Your task to perform on an android device: Open Reddit.com Image 0: 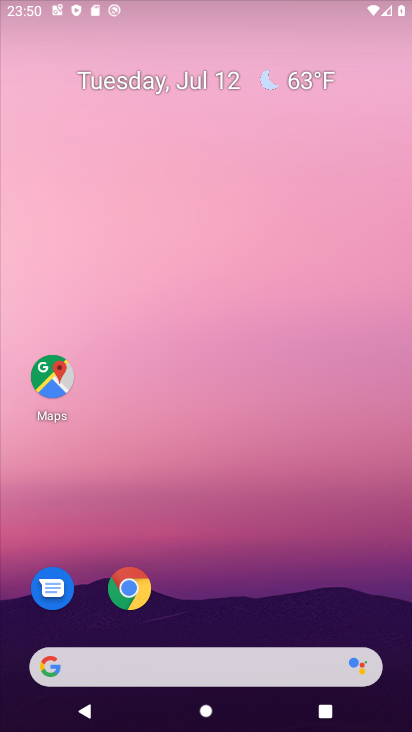
Step 0: click (86, 655)
Your task to perform on an android device: Open Reddit.com Image 1: 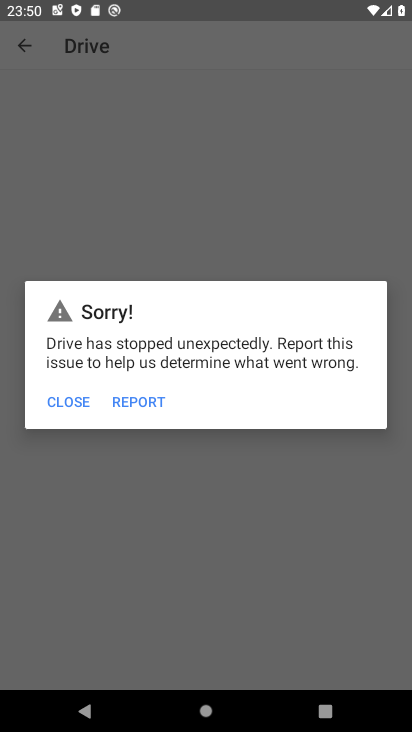
Step 1: press home button
Your task to perform on an android device: Open Reddit.com Image 2: 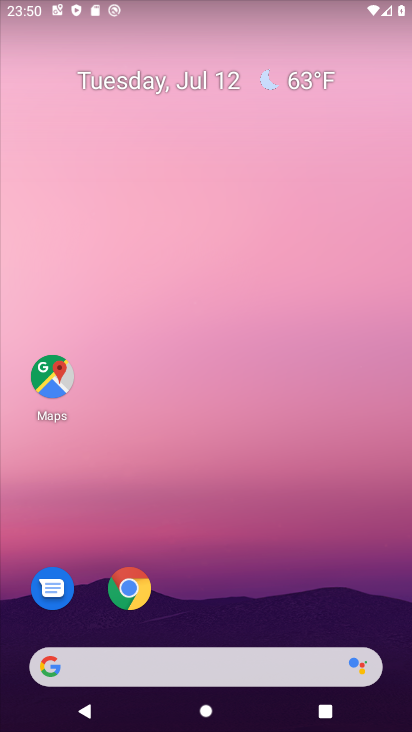
Step 2: click (116, 661)
Your task to perform on an android device: Open Reddit.com Image 3: 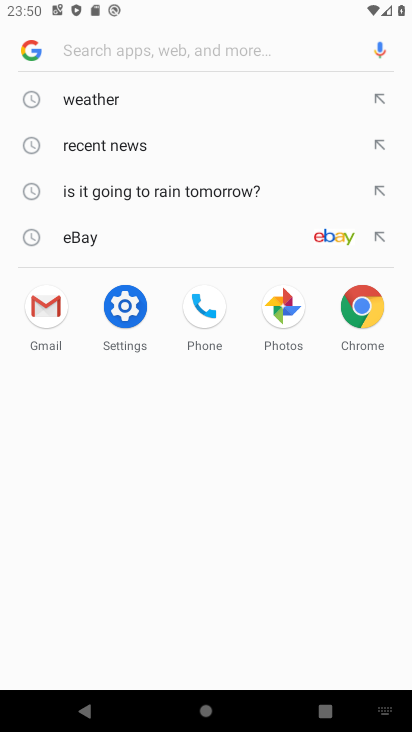
Step 3: type "Reddit.com"
Your task to perform on an android device: Open Reddit.com Image 4: 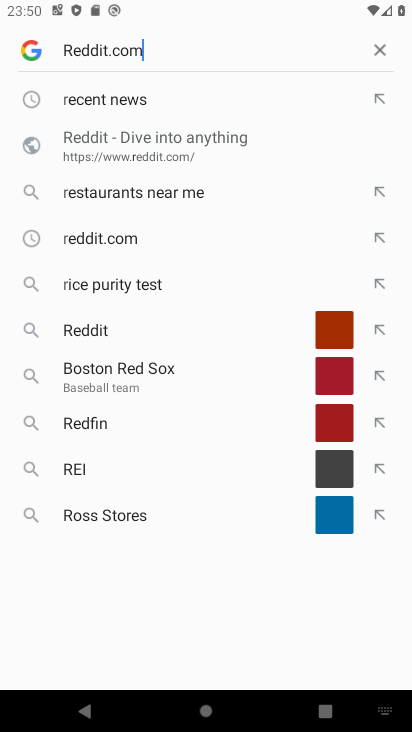
Step 4: type ""
Your task to perform on an android device: Open Reddit.com Image 5: 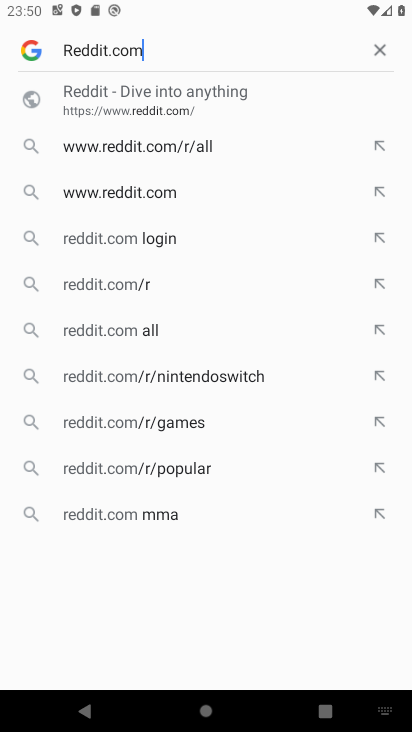
Step 5: type ""
Your task to perform on an android device: Open Reddit.com Image 6: 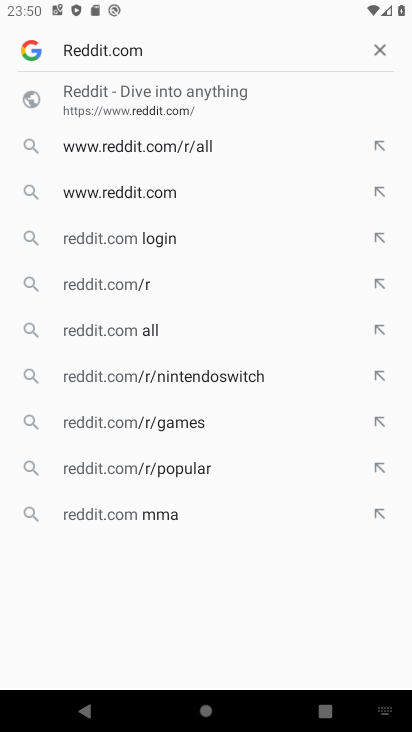
Step 6: type ""
Your task to perform on an android device: Open Reddit.com Image 7: 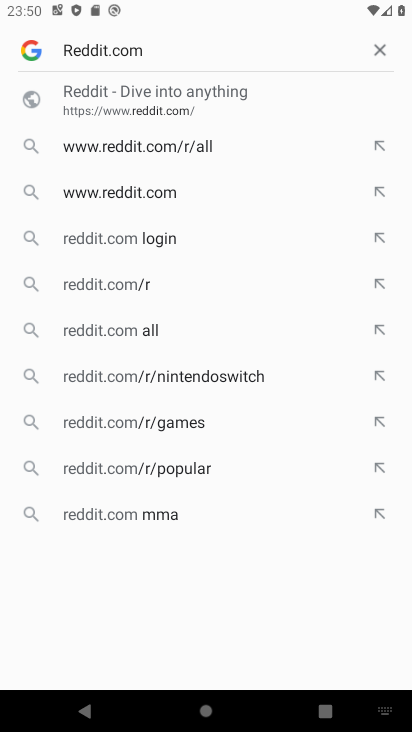
Step 7: type ""
Your task to perform on an android device: Open Reddit.com Image 8: 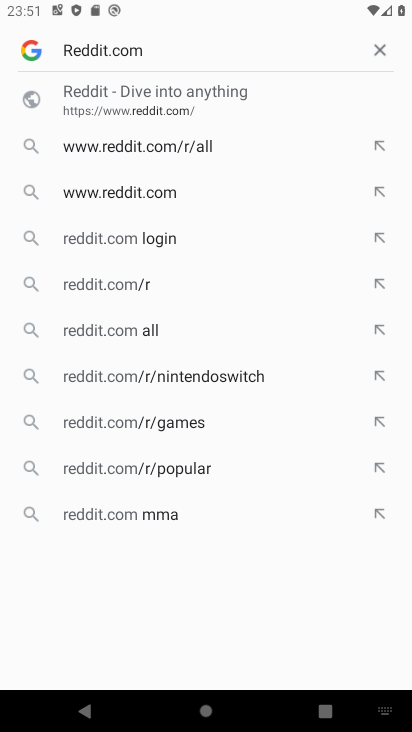
Step 8: task complete